Your task to perform on an android device: What's the weather? Image 0: 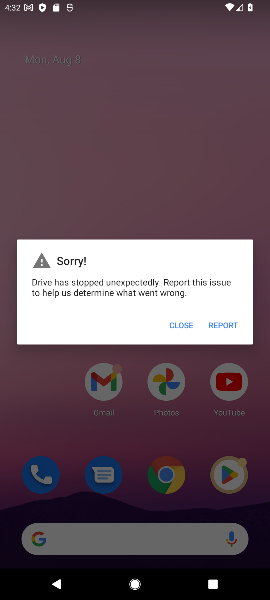
Step 0: press home button
Your task to perform on an android device: What's the weather? Image 1: 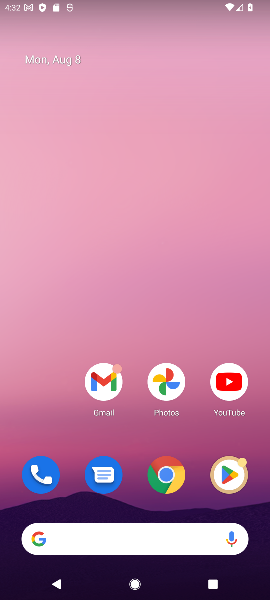
Step 1: click (147, 541)
Your task to perform on an android device: What's the weather? Image 2: 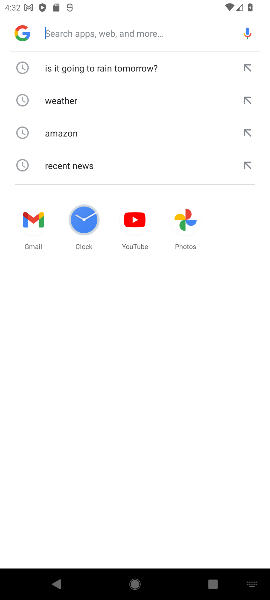
Step 2: click (74, 96)
Your task to perform on an android device: What's the weather? Image 3: 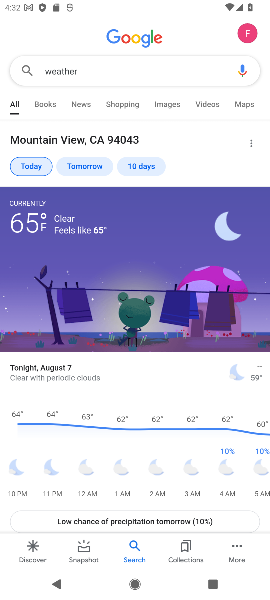
Step 3: task complete